Your task to perform on an android device: toggle notifications settings in the gmail app Image 0: 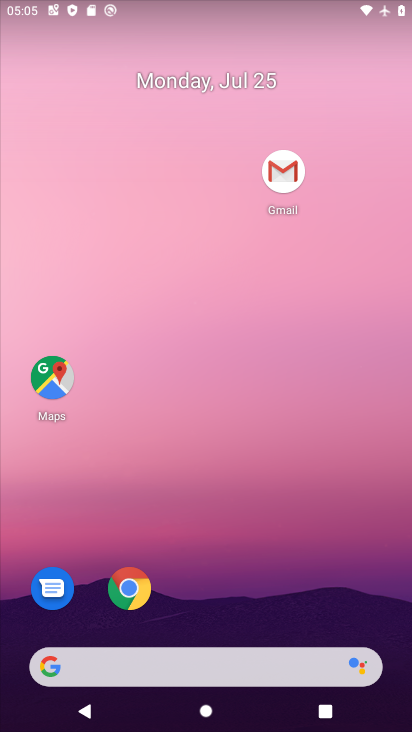
Step 0: drag from (252, 559) to (267, 52)
Your task to perform on an android device: toggle notifications settings in the gmail app Image 1: 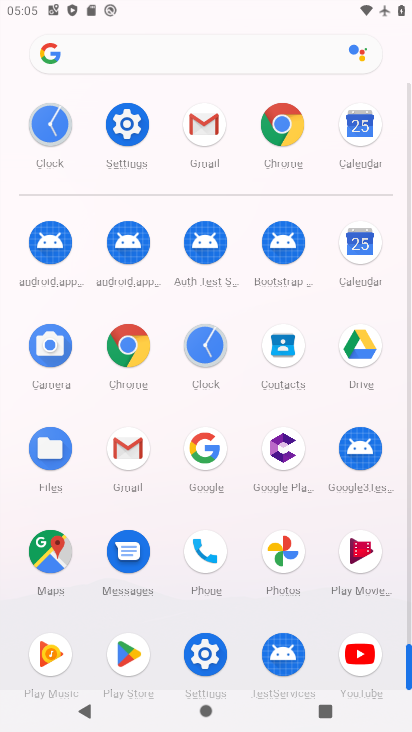
Step 1: click (205, 127)
Your task to perform on an android device: toggle notifications settings in the gmail app Image 2: 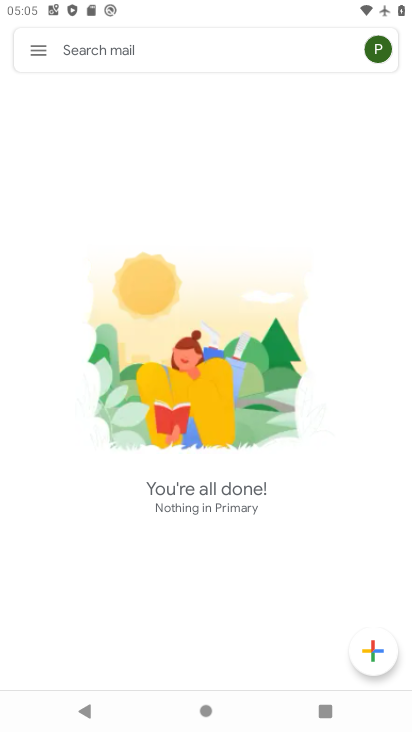
Step 2: click (29, 32)
Your task to perform on an android device: toggle notifications settings in the gmail app Image 3: 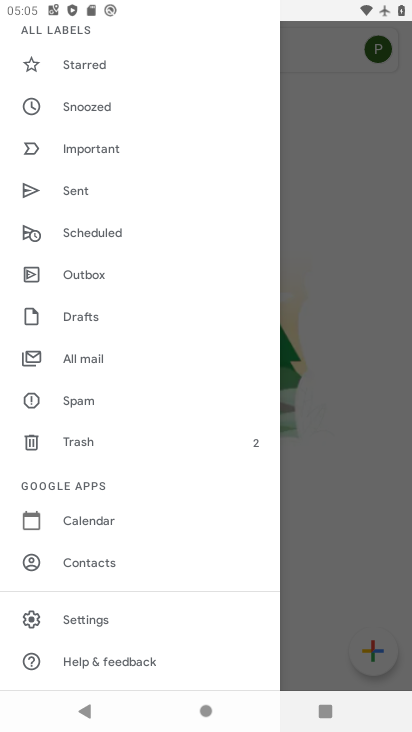
Step 3: click (93, 619)
Your task to perform on an android device: toggle notifications settings in the gmail app Image 4: 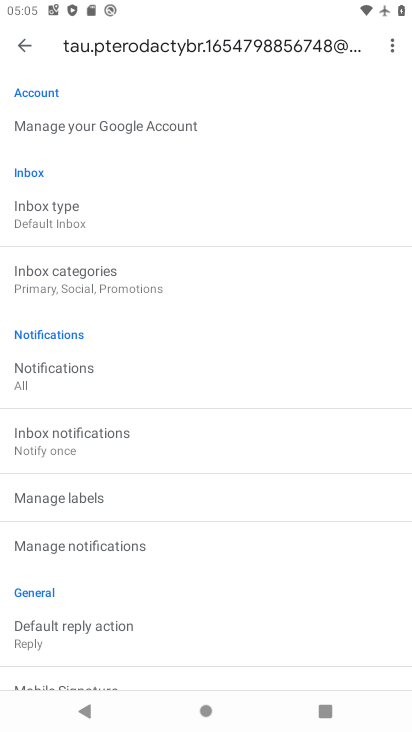
Step 4: click (126, 539)
Your task to perform on an android device: toggle notifications settings in the gmail app Image 5: 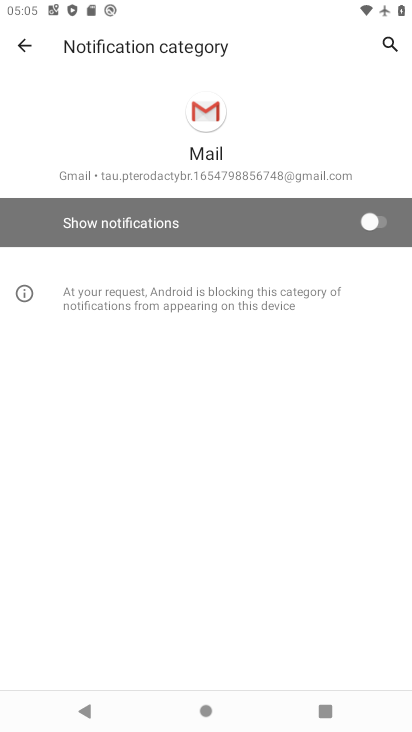
Step 5: click (339, 214)
Your task to perform on an android device: toggle notifications settings in the gmail app Image 6: 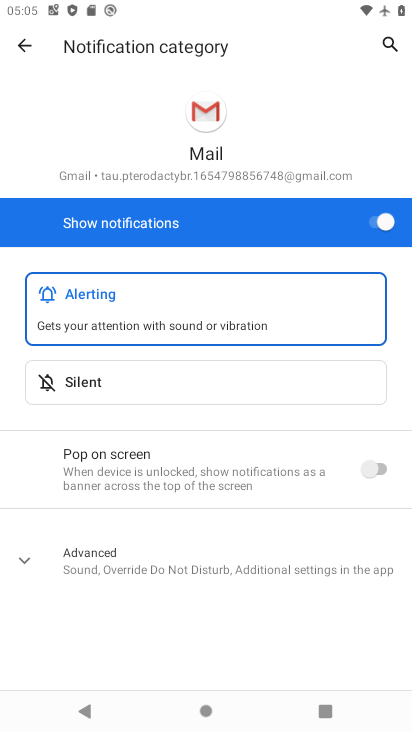
Step 6: task complete